Your task to perform on an android device: Go to ESPN.com Image 0: 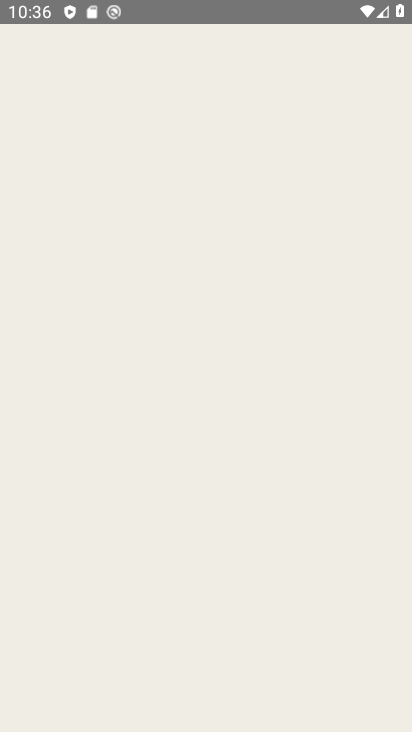
Step 0: drag from (150, 133) to (203, 716)
Your task to perform on an android device: Go to ESPN.com Image 1: 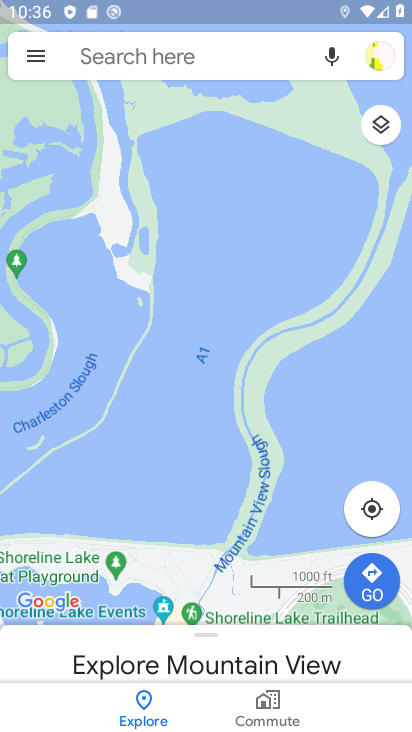
Step 1: press home button
Your task to perform on an android device: Go to ESPN.com Image 2: 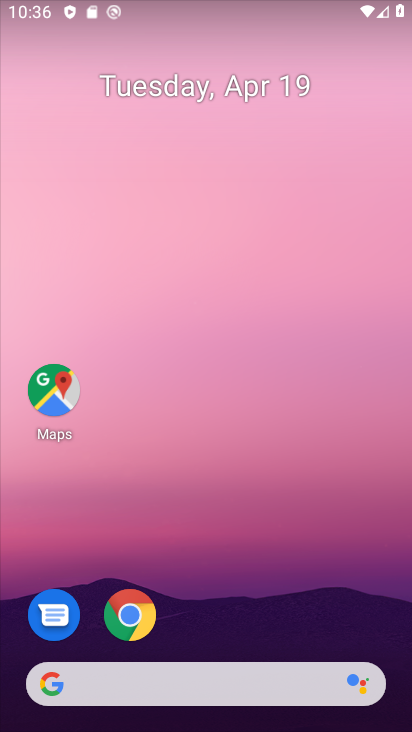
Step 2: click (128, 593)
Your task to perform on an android device: Go to ESPN.com Image 3: 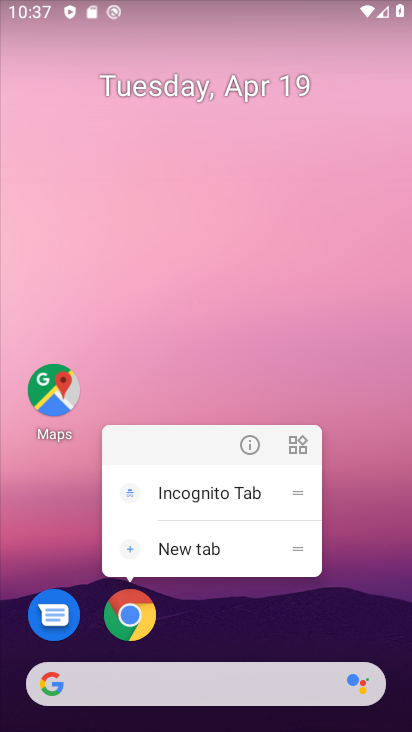
Step 3: click (127, 617)
Your task to perform on an android device: Go to ESPN.com Image 4: 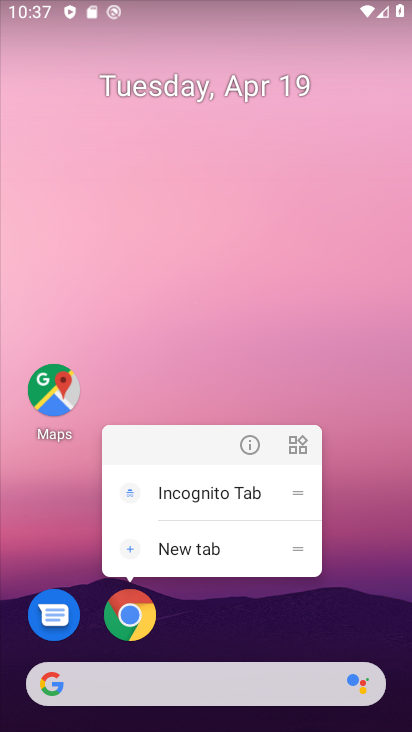
Step 4: click (127, 617)
Your task to perform on an android device: Go to ESPN.com Image 5: 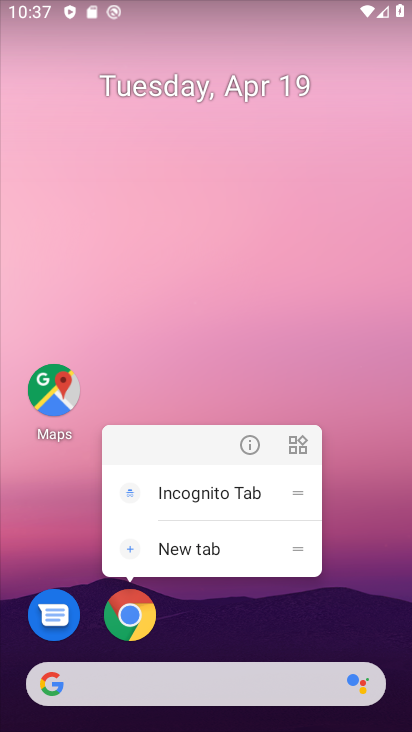
Step 5: click (127, 617)
Your task to perform on an android device: Go to ESPN.com Image 6: 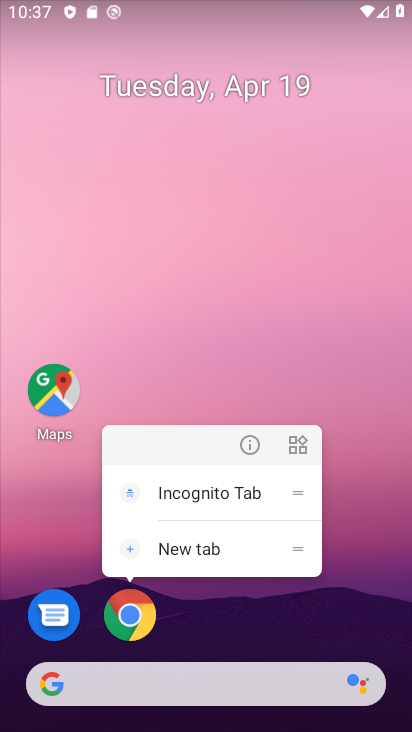
Step 6: click (127, 617)
Your task to perform on an android device: Go to ESPN.com Image 7: 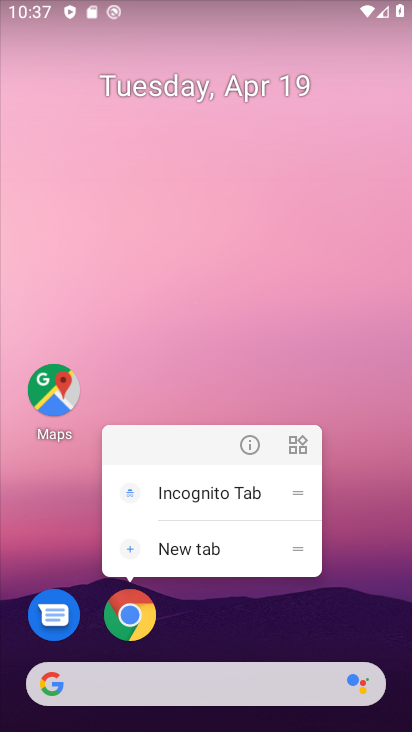
Step 7: click (116, 617)
Your task to perform on an android device: Go to ESPN.com Image 8: 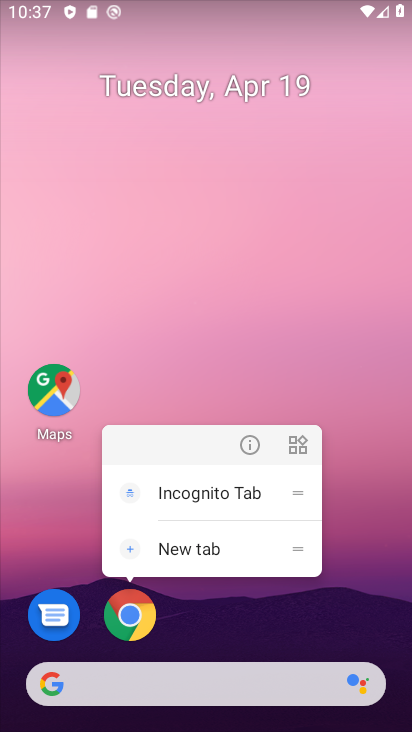
Step 8: click (116, 617)
Your task to perform on an android device: Go to ESPN.com Image 9: 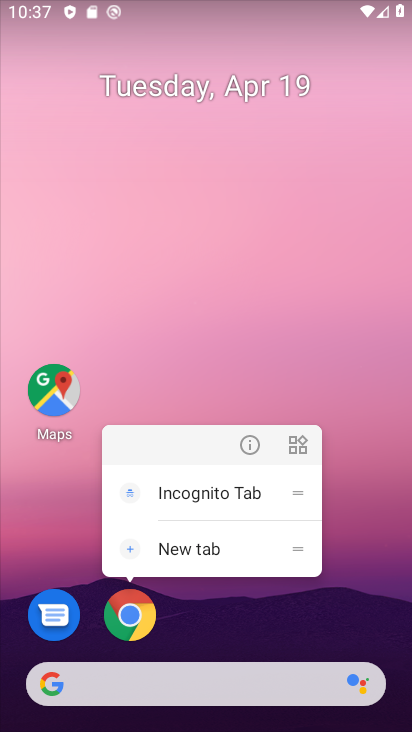
Step 9: click (116, 617)
Your task to perform on an android device: Go to ESPN.com Image 10: 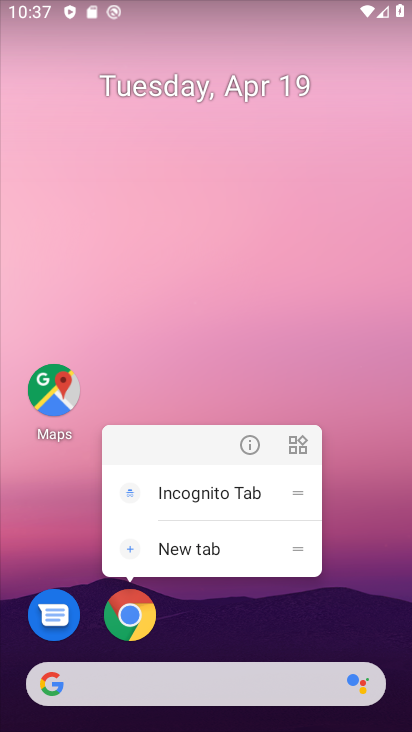
Step 10: click (116, 617)
Your task to perform on an android device: Go to ESPN.com Image 11: 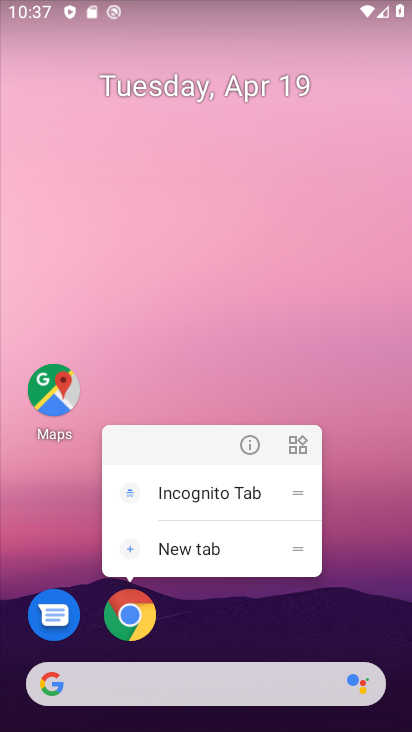
Step 11: click (125, 619)
Your task to perform on an android device: Go to ESPN.com Image 12: 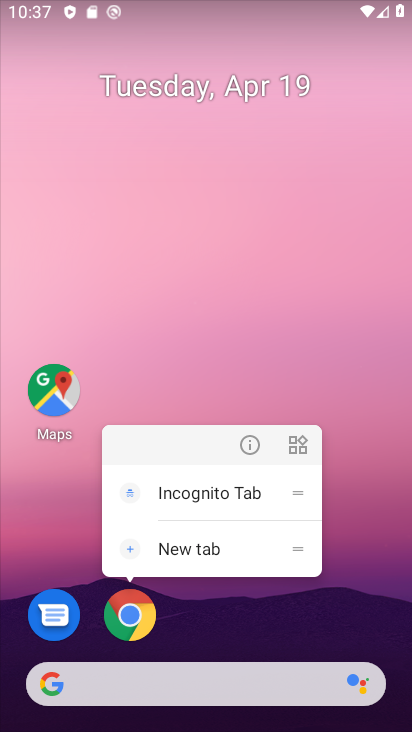
Step 12: click (125, 619)
Your task to perform on an android device: Go to ESPN.com Image 13: 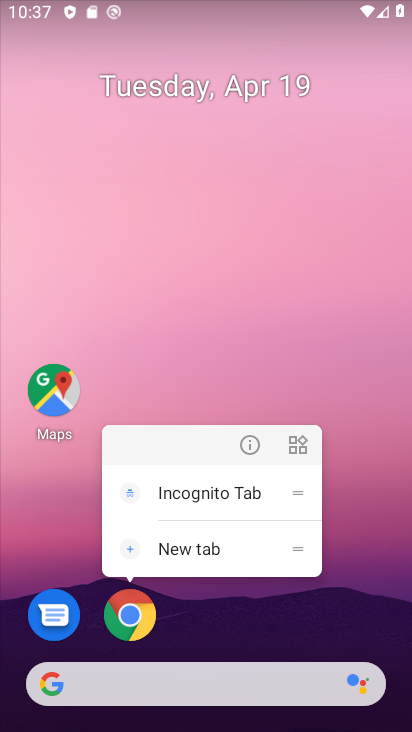
Step 13: click (125, 619)
Your task to perform on an android device: Go to ESPN.com Image 14: 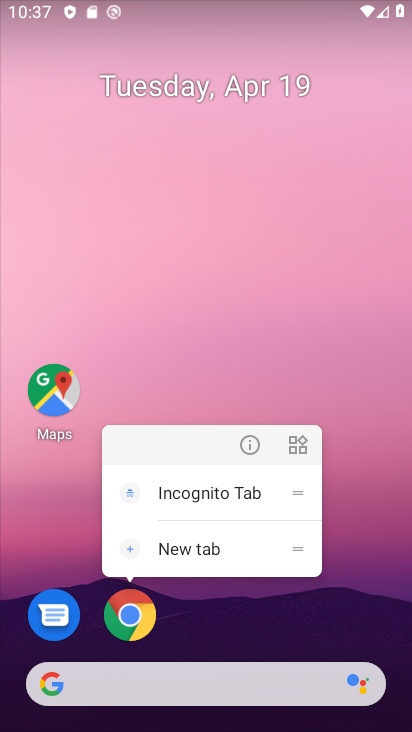
Step 14: click (125, 619)
Your task to perform on an android device: Go to ESPN.com Image 15: 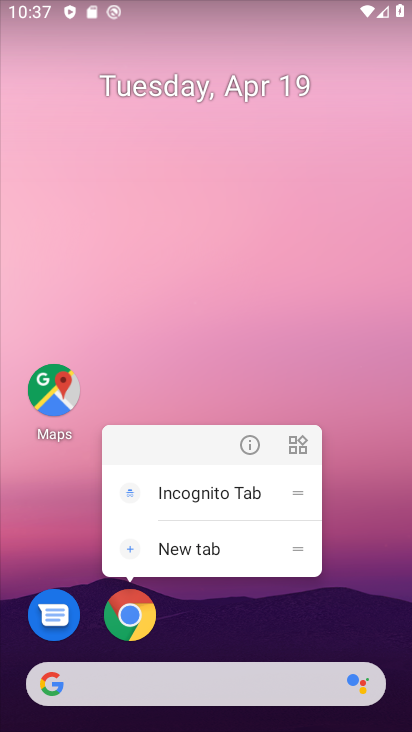
Step 15: click (125, 619)
Your task to perform on an android device: Go to ESPN.com Image 16: 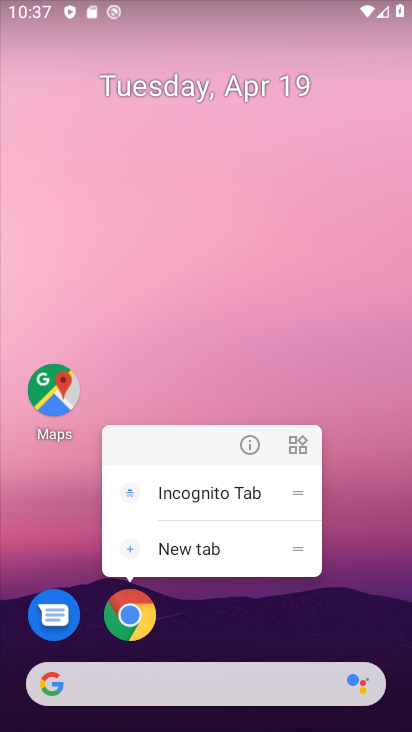
Step 16: click (125, 619)
Your task to perform on an android device: Go to ESPN.com Image 17: 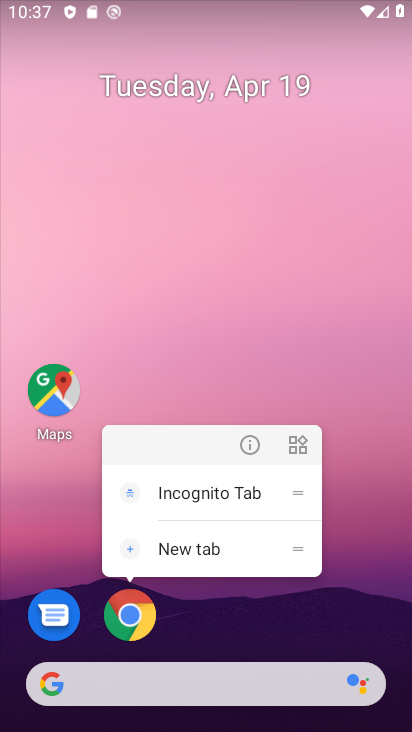
Step 17: click (125, 619)
Your task to perform on an android device: Go to ESPN.com Image 18: 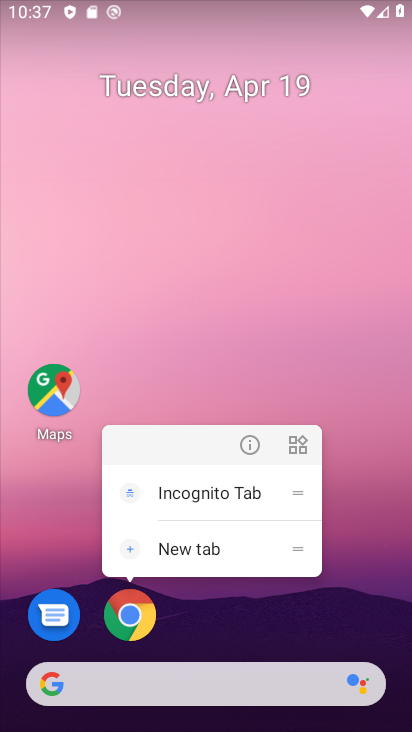
Step 18: click (125, 619)
Your task to perform on an android device: Go to ESPN.com Image 19: 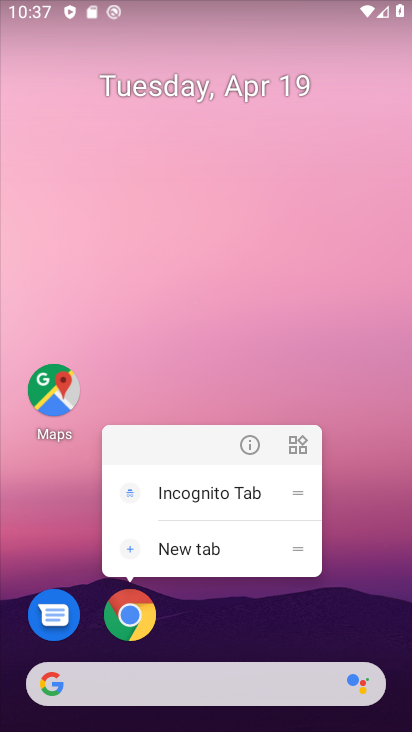
Step 19: click (125, 619)
Your task to perform on an android device: Go to ESPN.com Image 20: 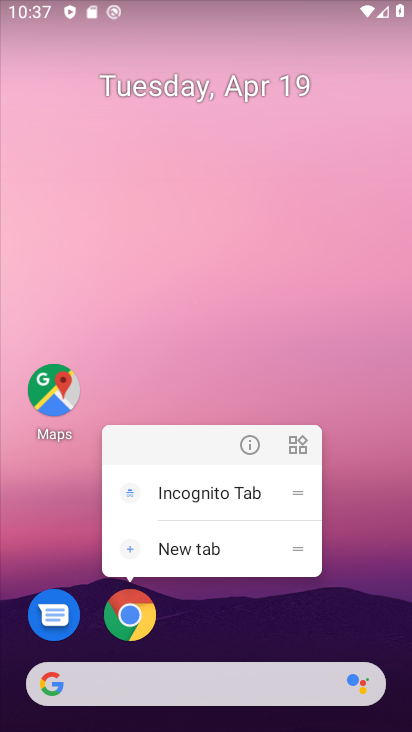
Step 20: click (125, 619)
Your task to perform on an android device: Go to ESPN.com Image 21: 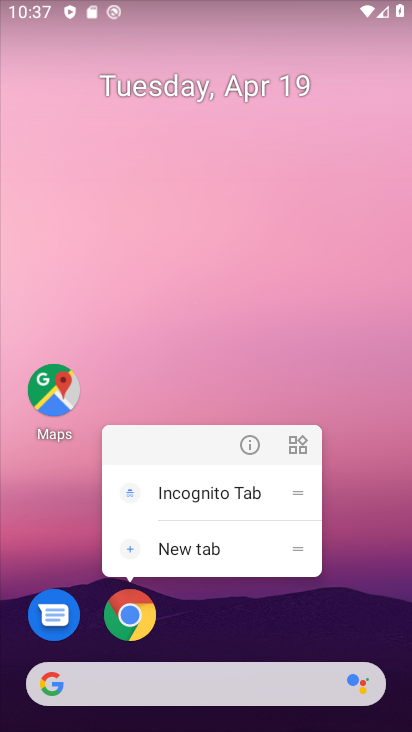
Step 21: click (125, 619)
Your task to perform on an android device: Go to ESPN.com Image 22: 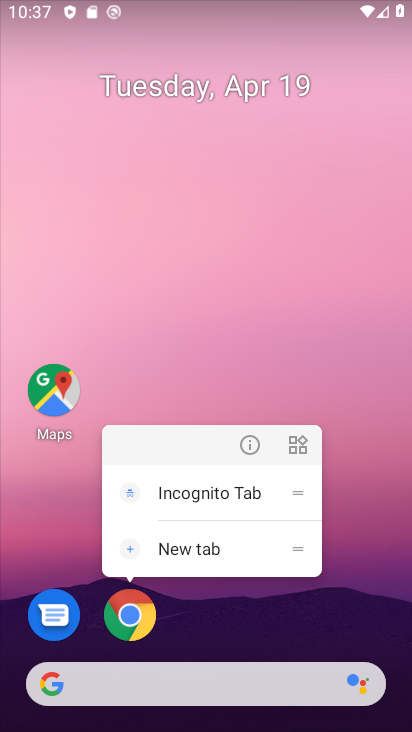
Step 22: click (125, 619)
Your task to perform on an android device: Go to ESPN.com Image 23: 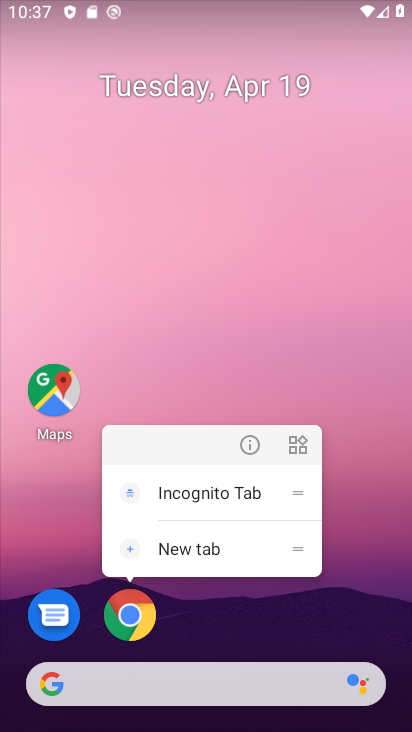
Step 23: click (125, 619)
Your task to perform on an android device: Go to ESPN.com Image 24: 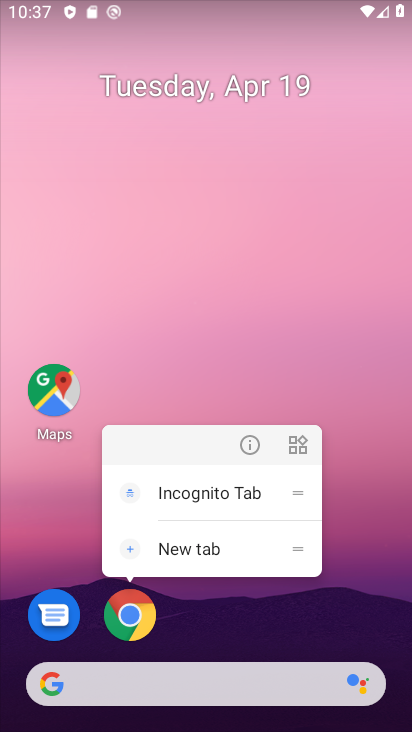
Step 24: click (125, 619)
Your task to perform on an android device: Go to ESPN.com Image 25: 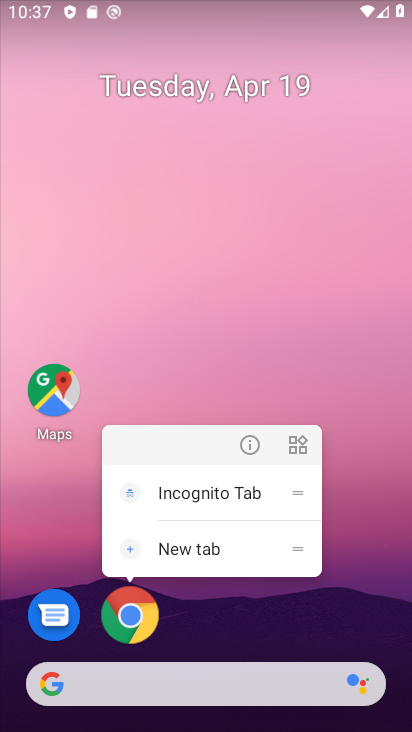
Step 25: click (125, 619)
Your task to perform on an android device: Go to ESPN.com Image 26: 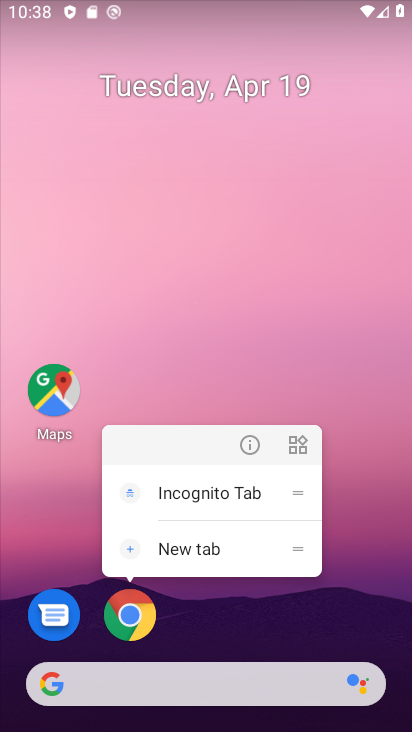
Step 26: click (125, 619)
Your task to perform on an android device: Go to ESPN.com Image 27: 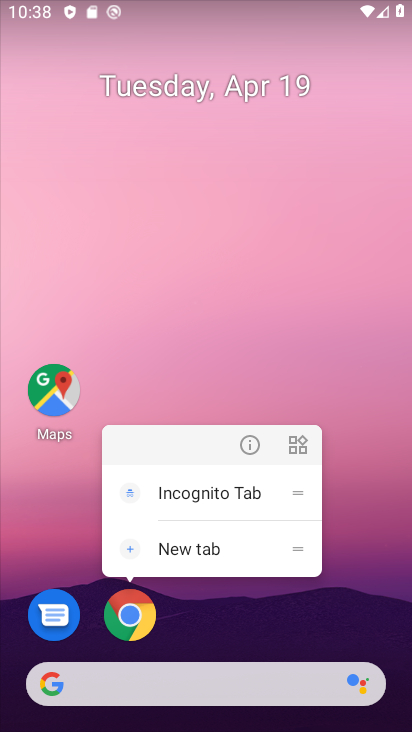
Step 27: click (125, 619)
Your task to perform on an android device: Go to ESPN.com Image 28: 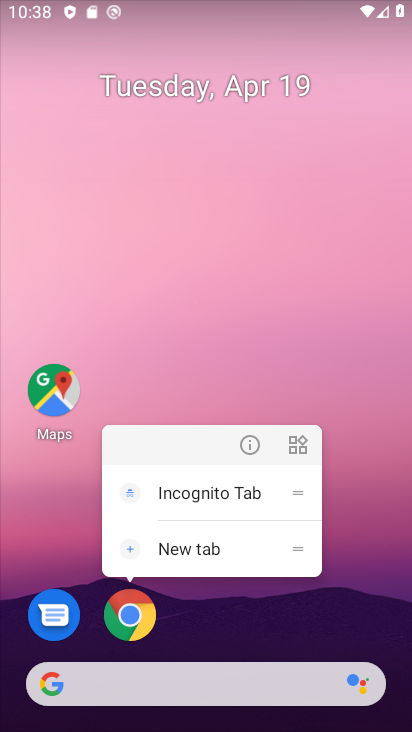
Step 28: click (125, 618)
Your task to perform on an android device: Go to ESPN.com Image 29: 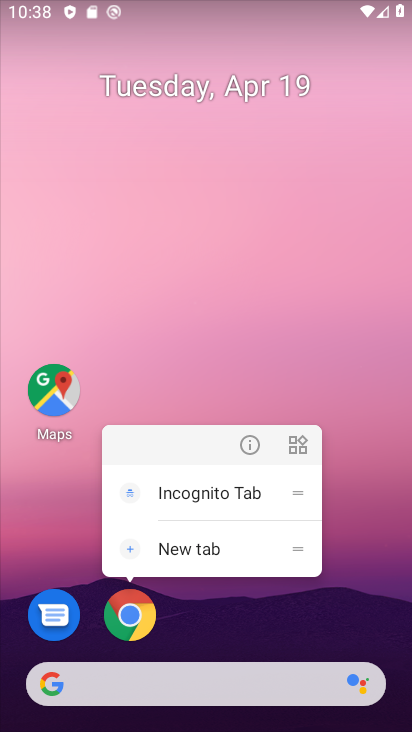
Step 29: click (125, 620)
Your task to perform on an android device: Go to ESPN.com Image 30: 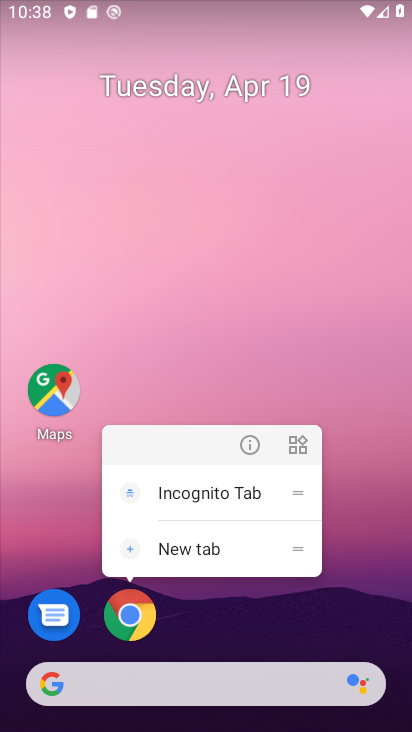
Step 30: click (125, 620)
Your task to perform on an android device: Go to ESPN.com Image 31: 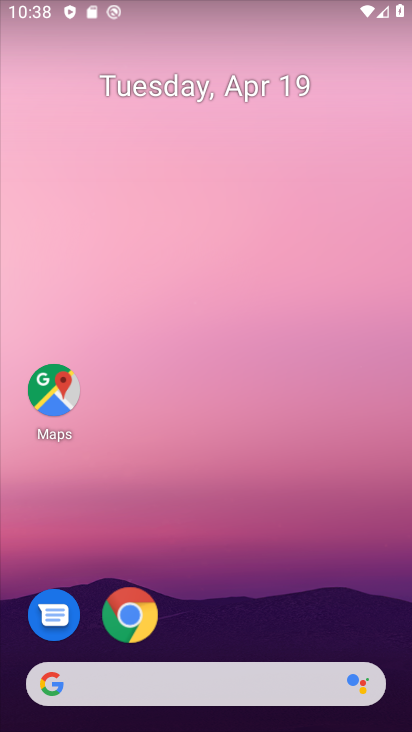
Step 31: click (125, 620)
Your task to perform on an android device: Go to ESPN.com Image 32: 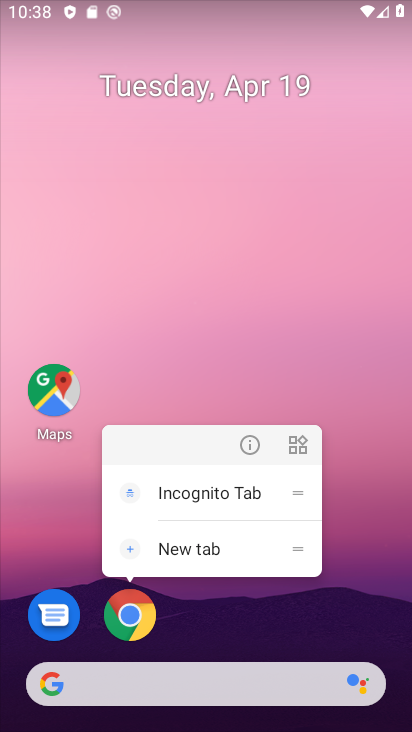
Step 32: click (125, 620)
Your task to perform on an android device: Go to ESPN.com Image 33: 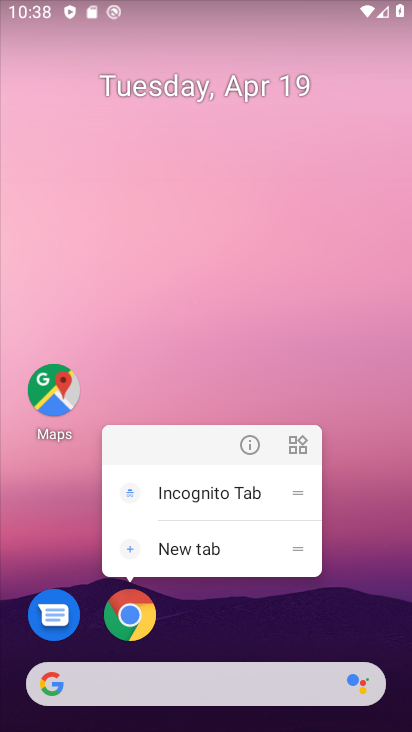
Step 33: click (125, 620)
Your task to perform on an android device: Go to ESPN.com Image 34: 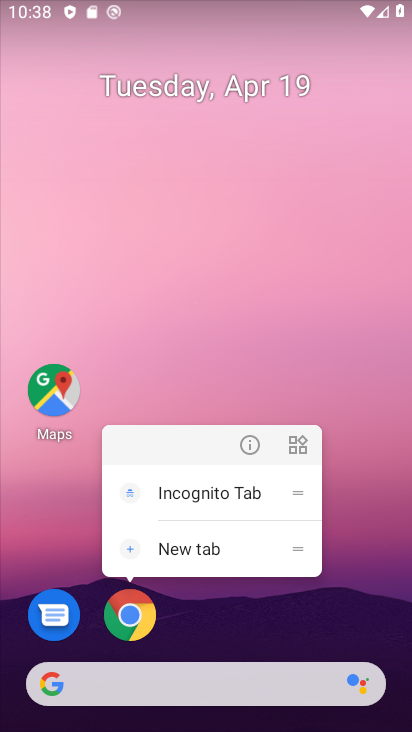
Step 34: click (125, 620)
Your task to perform on an android device: Go to ESPN.com Image 35: 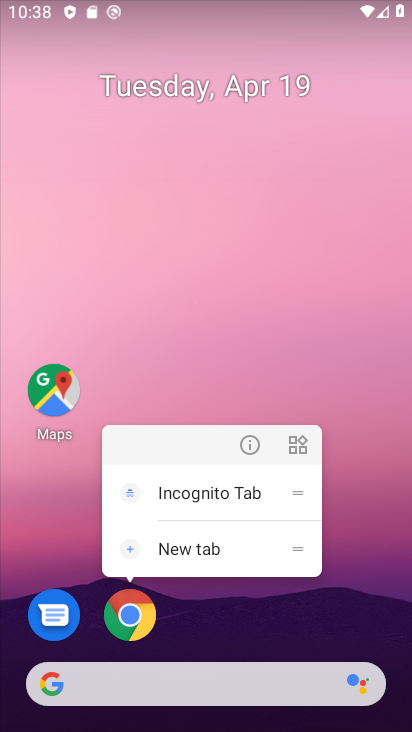
Step 35: click (125, 620)
Your task to perform on an android device: Go to ESPN.com Image 36: 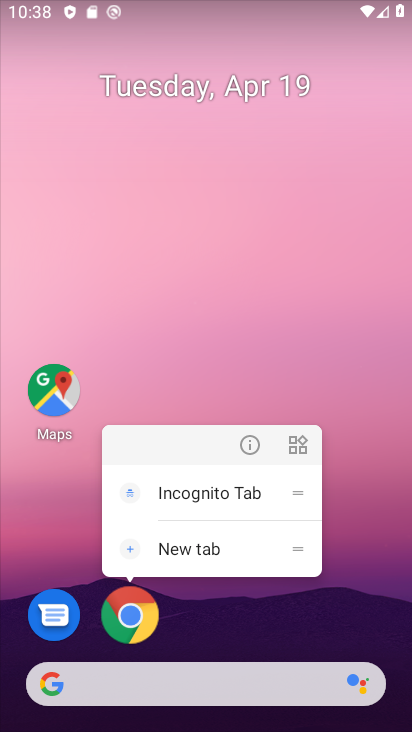
Step 36: click (136, 616)
Your task to perform on an android device: Go to ESPN.com Image 37: 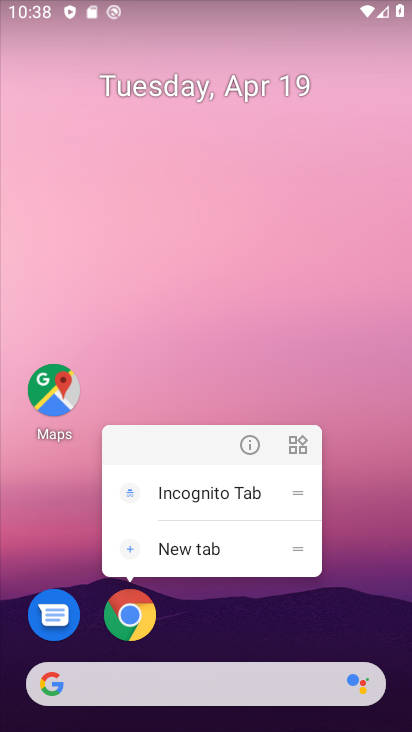
Step 37: click (136, 616)
Your task to perform on an android device: Go to ESPN.com Image 38: 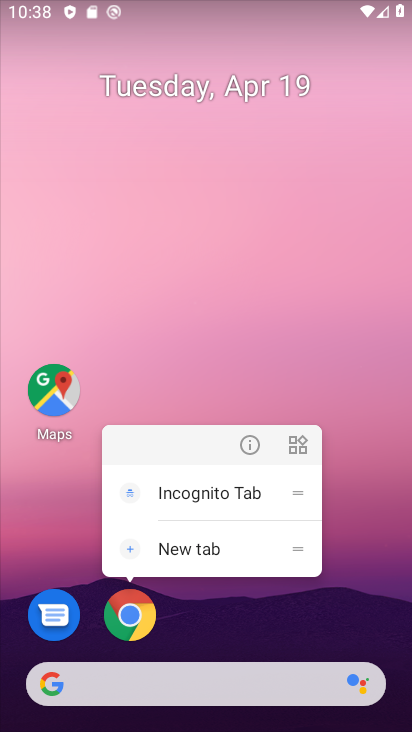
Step 38: click (136, 616)
Your task to perform on an android device: Go to ESPN.com Image 39: 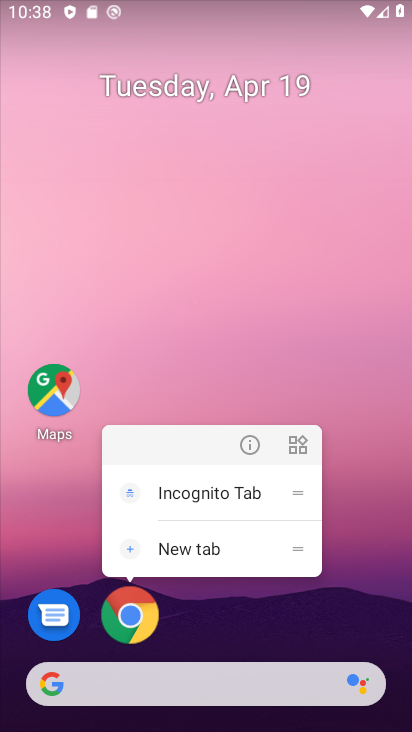
Step 39: click (136, 616)
Your task to perform on an android device: Go to ESPN.com Image 40: 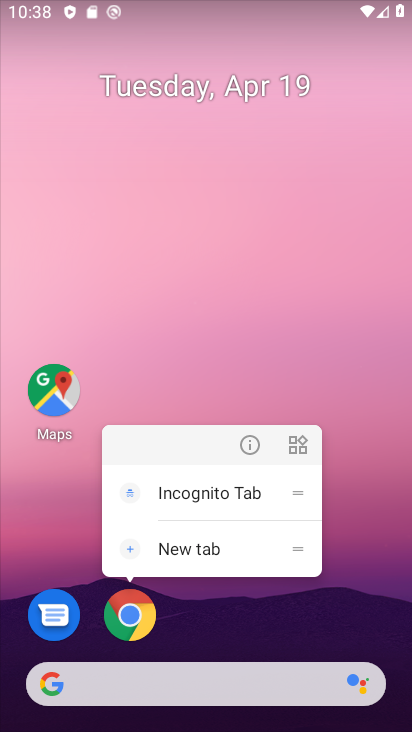
Step 40: click (136, 616)
Your task to perform on an android device: Go to ESPN.com Image 41: 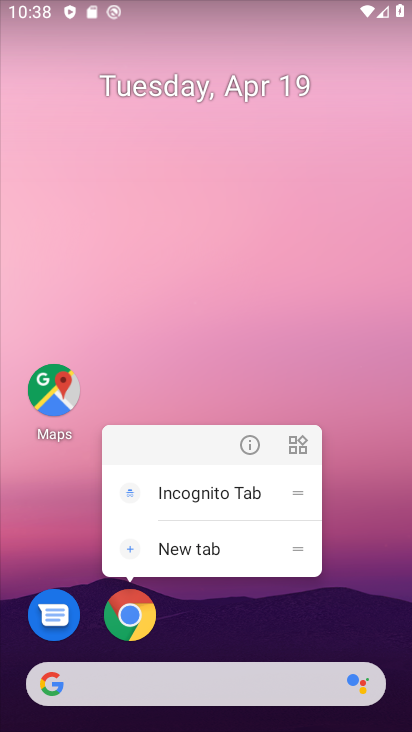
Step 41: click (136, 616)
Your task to perform on an android device: Go to ESPN.com Image 42: 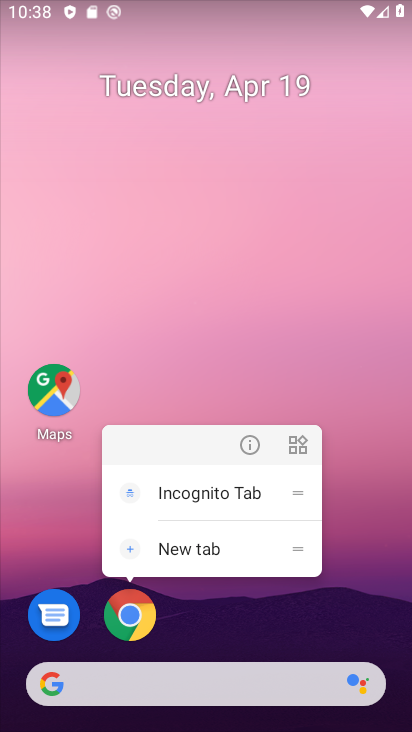
Step 42: click (136, 616)
Your task to perform on an android device: Go to ESPN.com Image 43: 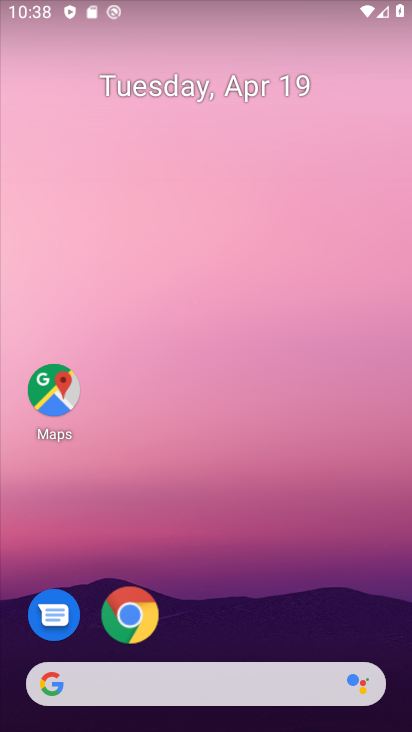
Step 43: click (136, 616)
Your task to perform on an android device: Go to ESPN.com Image 44: 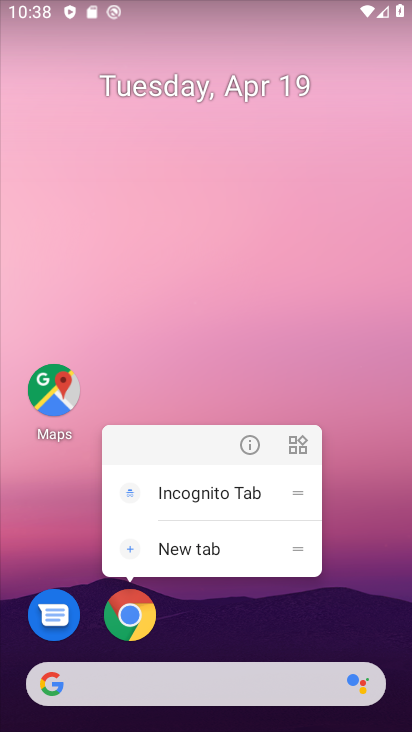
Step 44: click (136, 616)
Your task to perform on an android device: Go to ESPN.com Image 45: 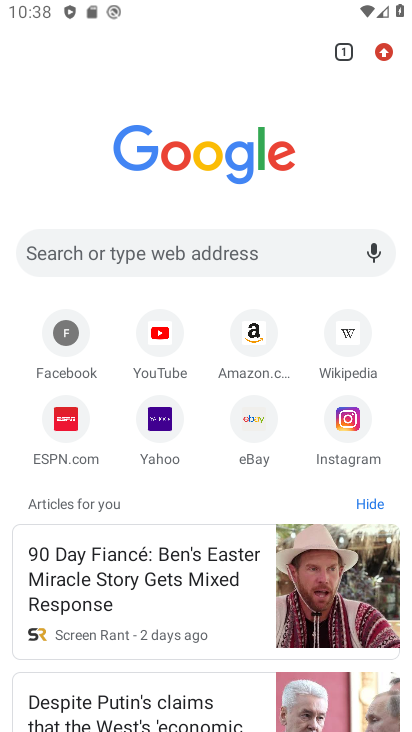
Step 45: click (154, 255)
Your task to perform on an android device: Go to ESPN.com Image 46: 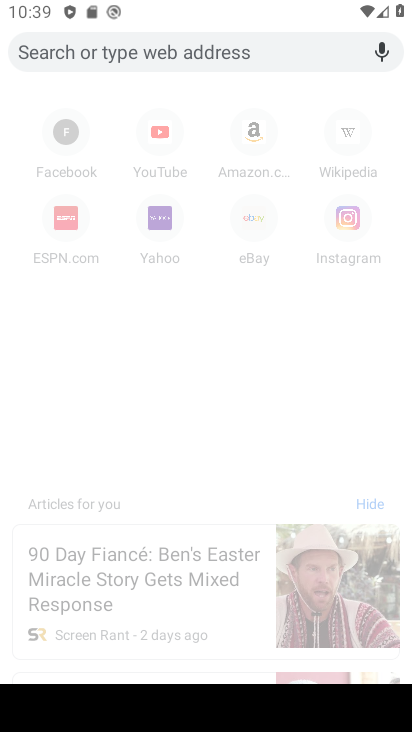
Step 46: type "espn.com"
Your task to perform on an android device: Go to ESPN.com Image 47: 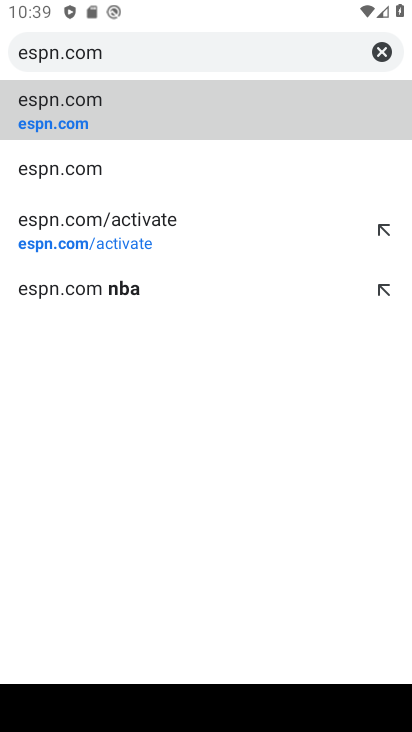
Step 47: click (70, 96)
Your task to perform on an android device: Go to ESPN.com Image 48: 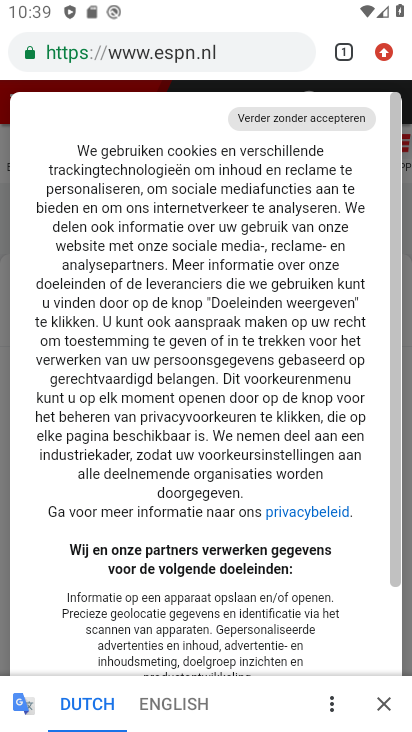
Step 48: task complete